Your task to perform on an android device: Search for sushi restaurants on Maps Image 0: 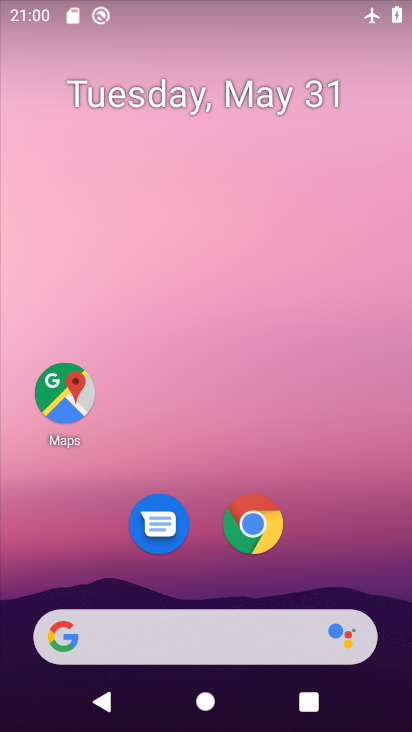
Step 0: click (74, 394)
Your task to perform on an android device: Search for sushi restaurants on Maps Image 1: 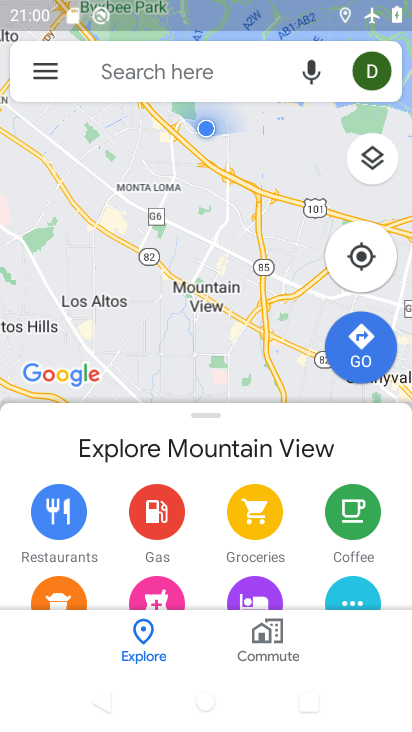
Step 1: click (215, 70)
Your task to perform on an android device: Search for sushi restaurants on Maps Image 2: 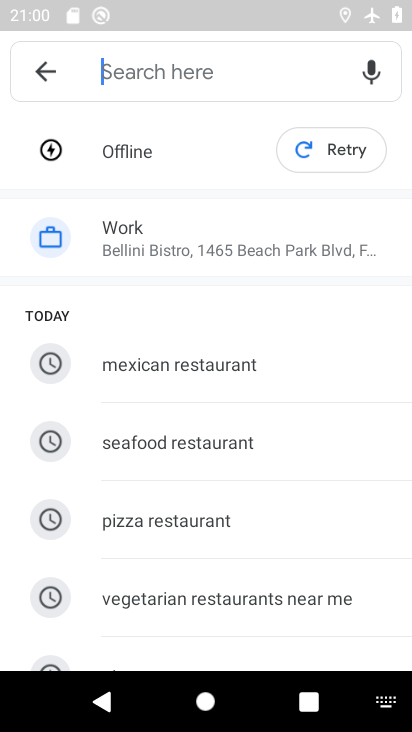
Step 2: drag from (218, 475) to (239, 269)
Your task to perform on an android device: Search for sushi restaurants on Maps Image 3: 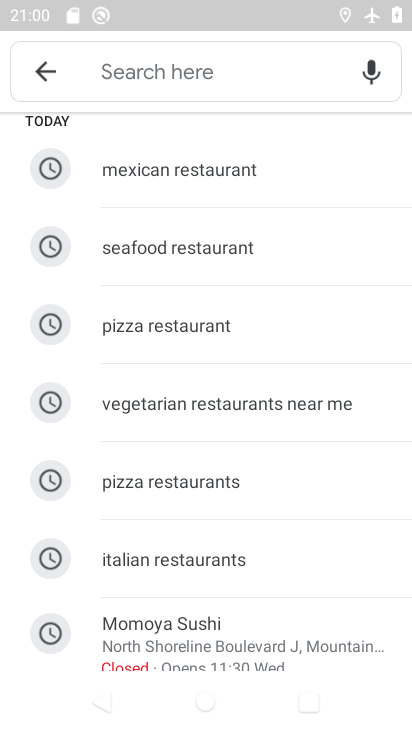
Step 3: click (235, 68)
Your task to perform on an android device: Search for sushi restaurants on Maps Image 4: 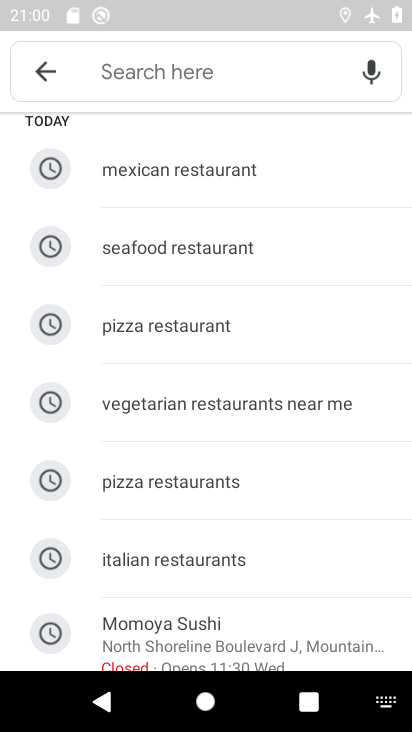
Step 4: type "sushi"
Your task to perform on an android device: Search for sushi restaurants on Maps Image 5: 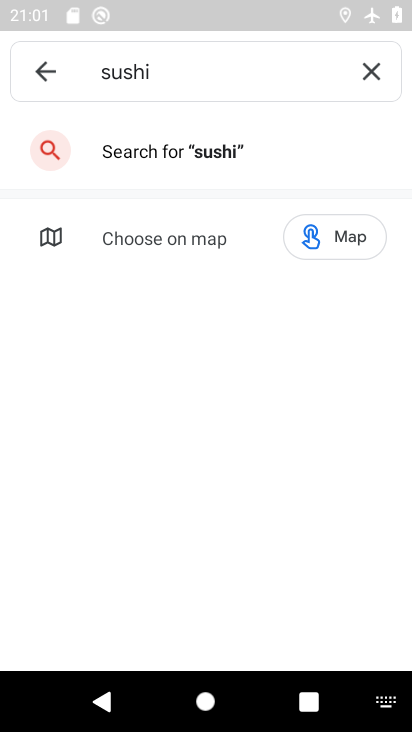
Step 5: type " restaurants"
Your task to perform on an android device: Search for sushi restaurants on Maps Image 6: 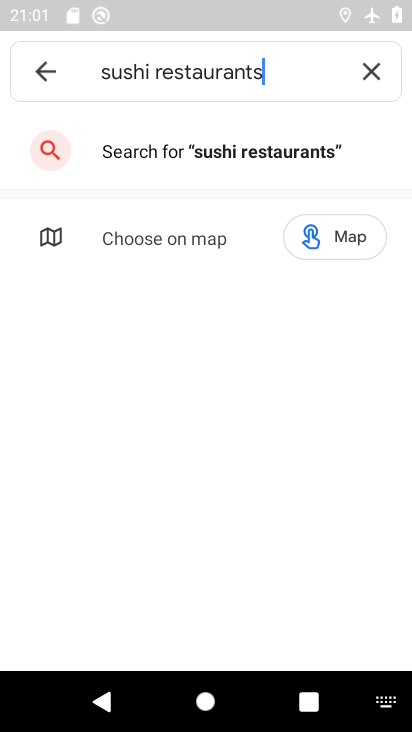
Step 6: click (276, 153)
Your task to perform on an android device: Search for sushi restaurants on Maps Image 7: 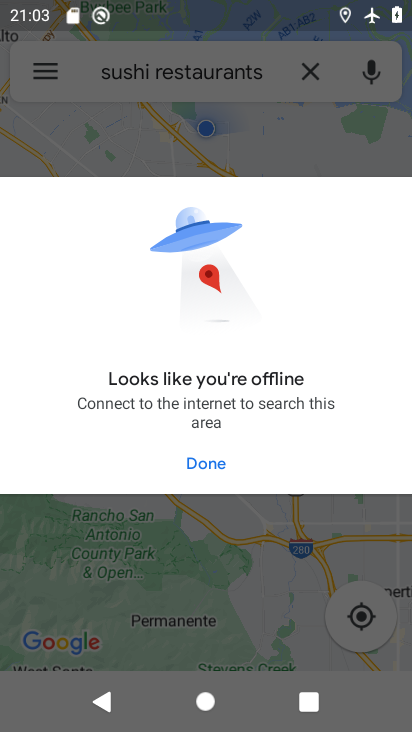
Step 7: task complete